Your task to perform on an android device: turn notification dots off Image 0: 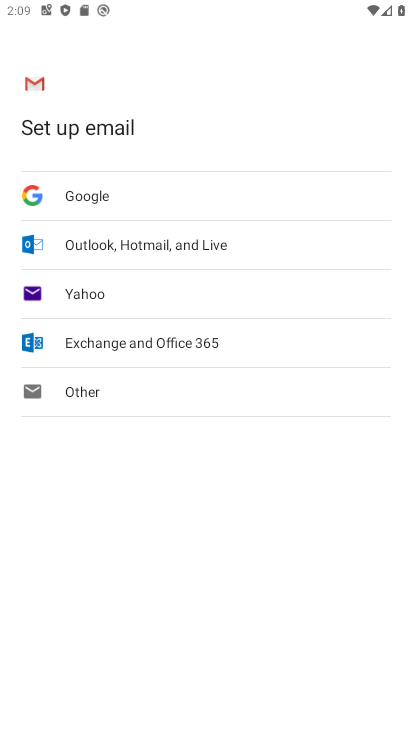
Step 0: press back button
Your task to perform on an android device: turn notification dots off Image 1: 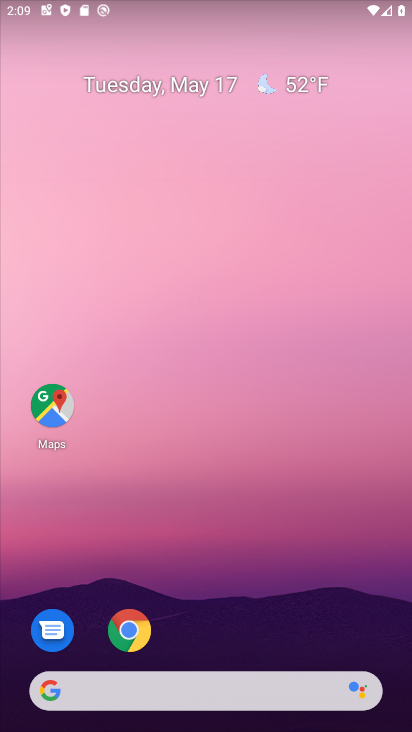
Step 1: drag from (267, 598) to (325, 32)
Your task to perform on an android device: turn notification dots off Image 2: 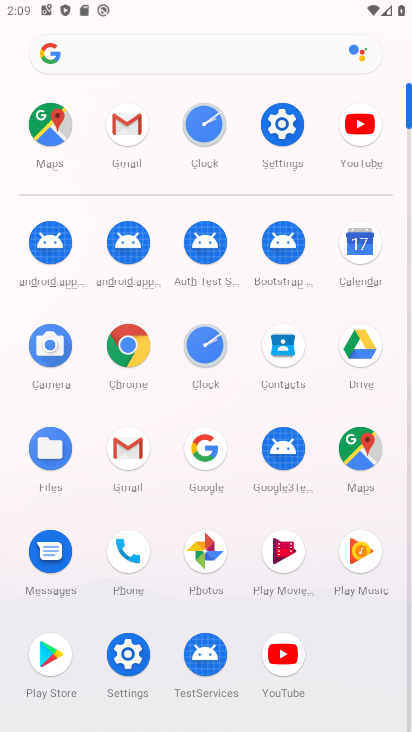
Step 2: click (288, 126)
Your task to perform on an android device: turn notification dots off Image 3: 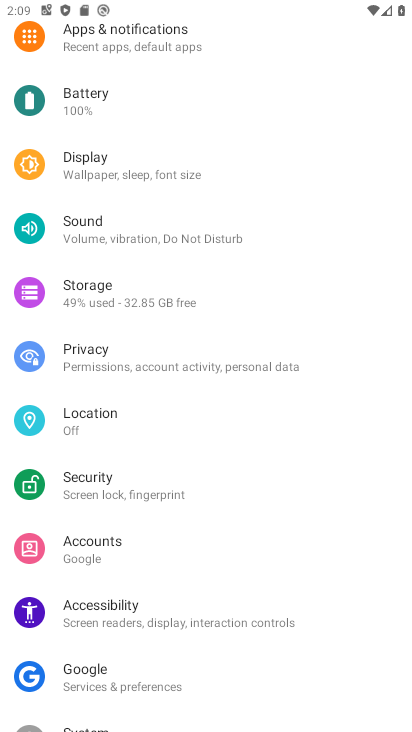
Step 3: drag from (224, 141) to (223, 595)
Your task to perform on an android device: turn notification dots off Image 4: 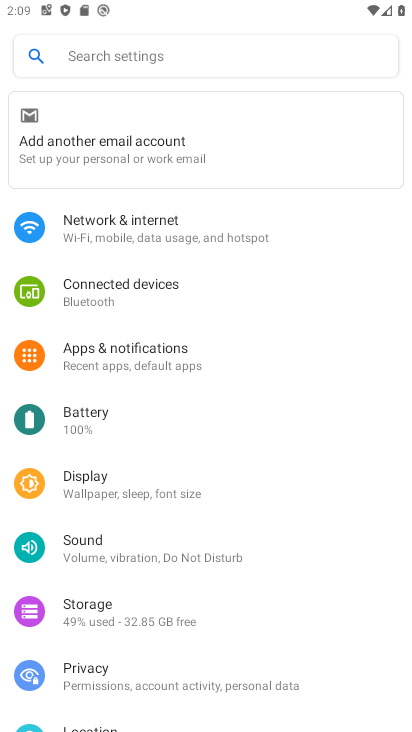
Step 4: click (152, 359)
Your task to perform on an android device: turn notification dots off Image 5: 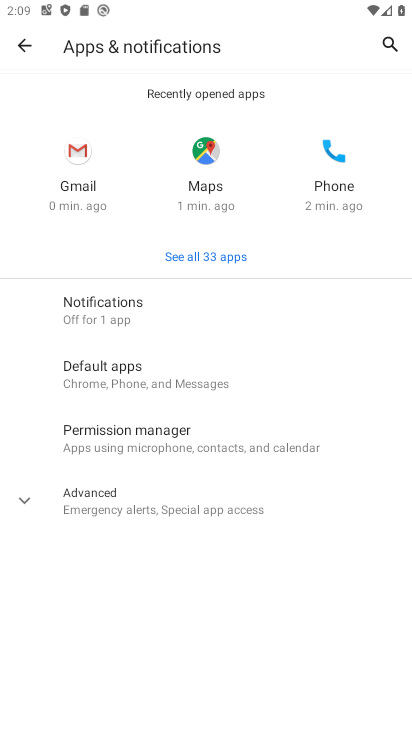
Step 5: click (123, 306)
Your task to perform on an android device: turn notification dots off Image 6: 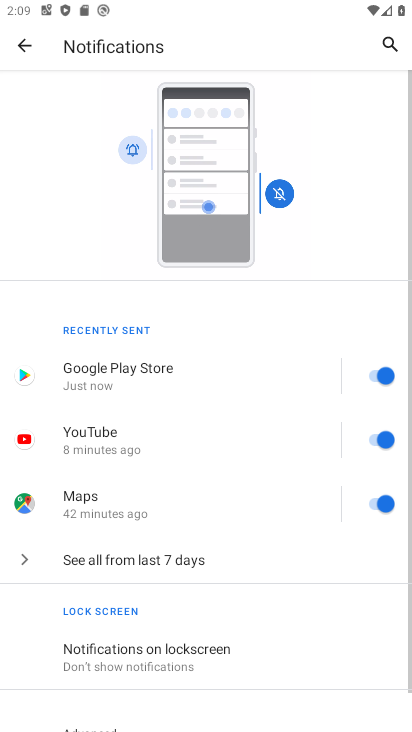
Step 6: drag from (163, 657) to (219, 117)
Your task to perform on an android device: turn notification dots off Image 7: 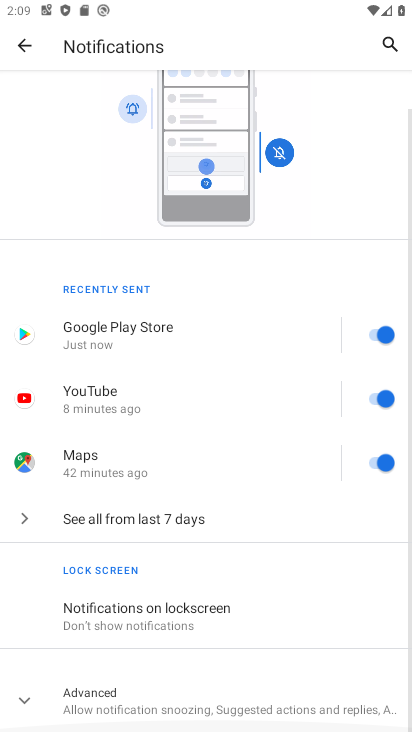
Step 7: click (187, 680)
Your task to perform on an android device: turn notification dots off Image 8: 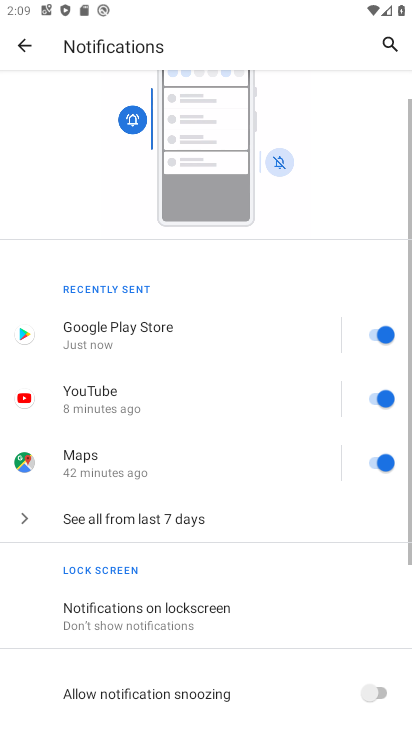
Step 8: task complete